Your task to perform on an android device: Open Amazon Image 0: 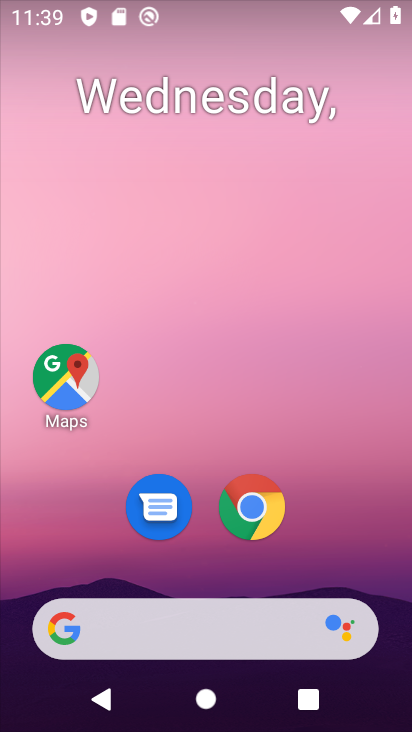
Step 0: click (266, 525)
Your task to perform on an android device: Open Amazon Image 1: 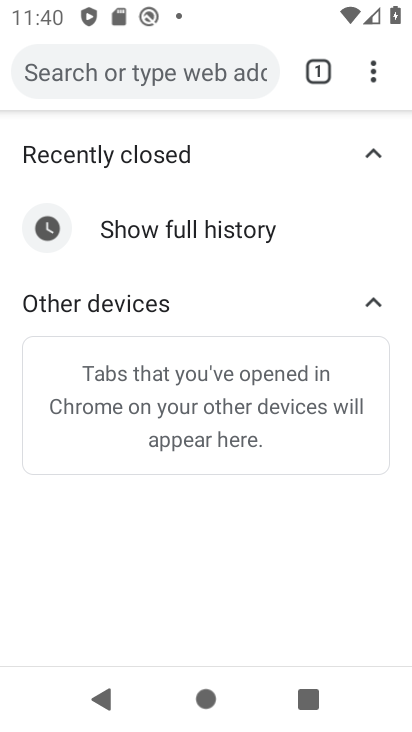
Step 1: click (185, 70)
Your task to perform on an android device: Open Amazon Image 2: 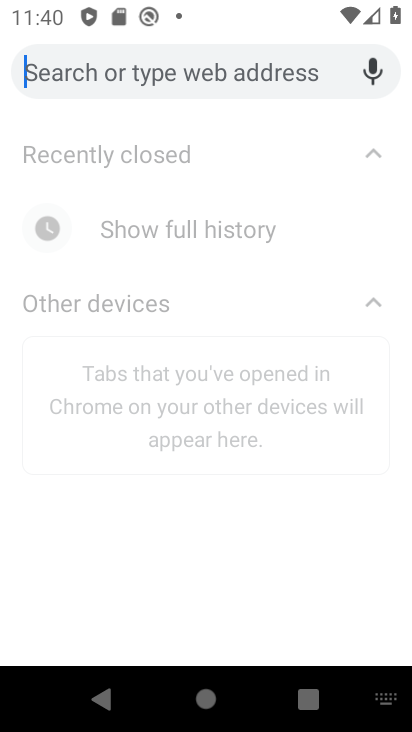
Step 2: type "amazon"
Your task to perform on an android device: Open Amazon Image 3: 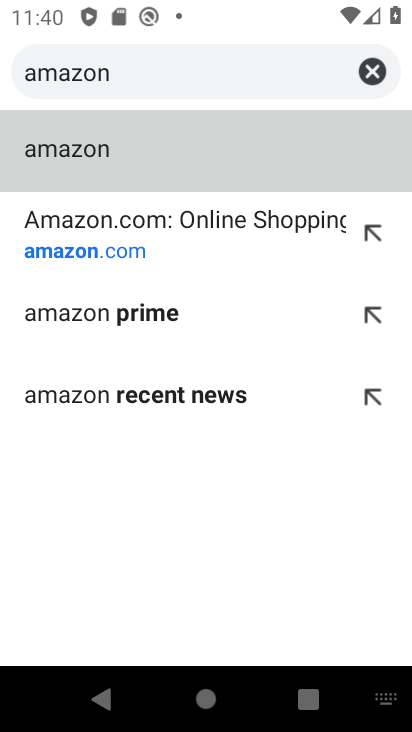
Step 3: click (103, 224)
Your task to perform on an android device: Open Amazon Image 4: 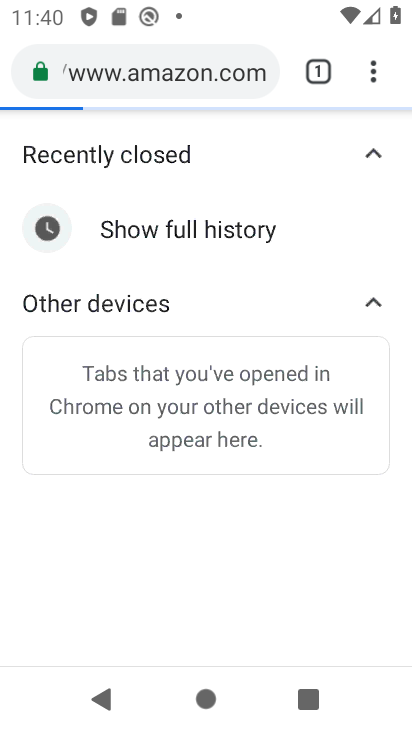
Step 4: task complete